Your task to perform on an android device: When is my next appointment? Image 0: 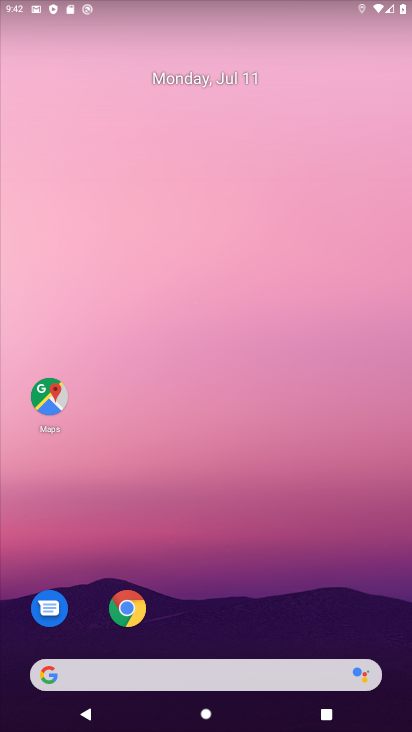
Step 0: click (151, 218)
Your task to perform on an android device: When is my next appointment? Image 1: 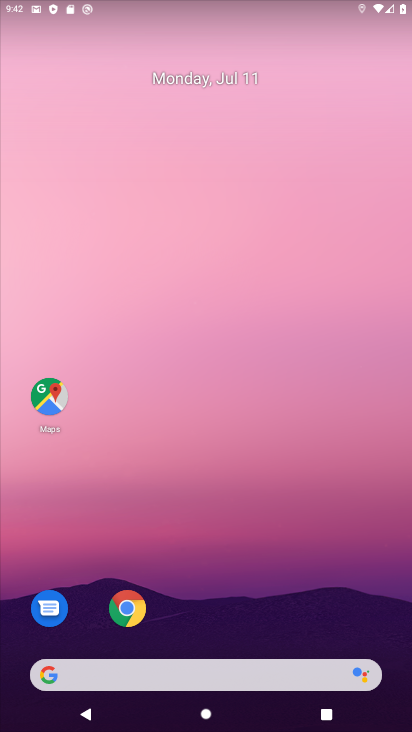
Step 1: drag from (238, 508) to (148, 15)
Your task to perform on an android device: When is my next appointment? Image 2: 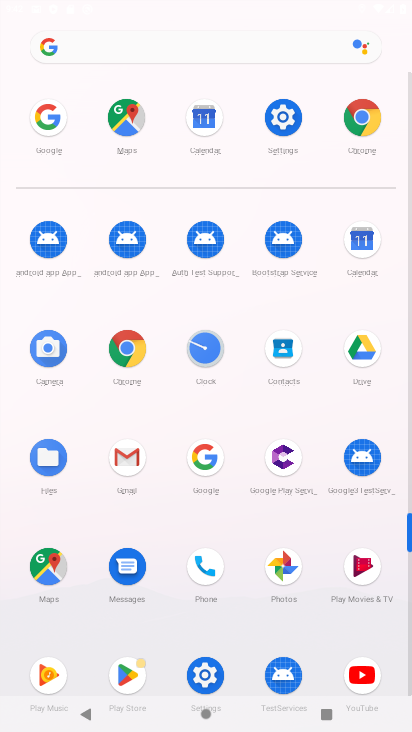
Step 2: drag from (289, 536) to (245, 46)
Your task to perform on an android device: When is my next appointment? Image 3: 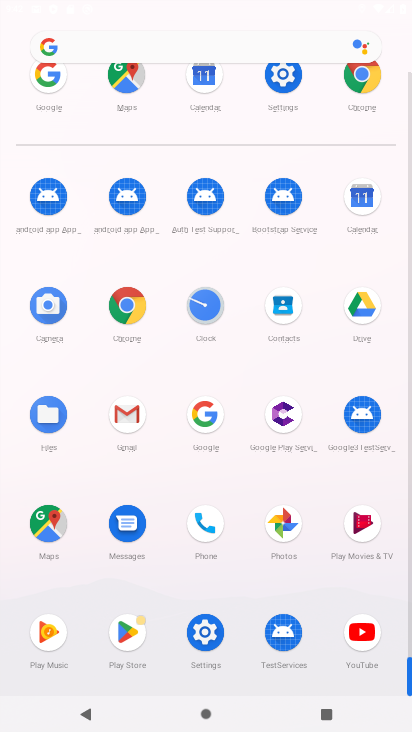
Step 3: click (360, 202)
Your task to perform on an android device: When is my next appointment? Image 4: 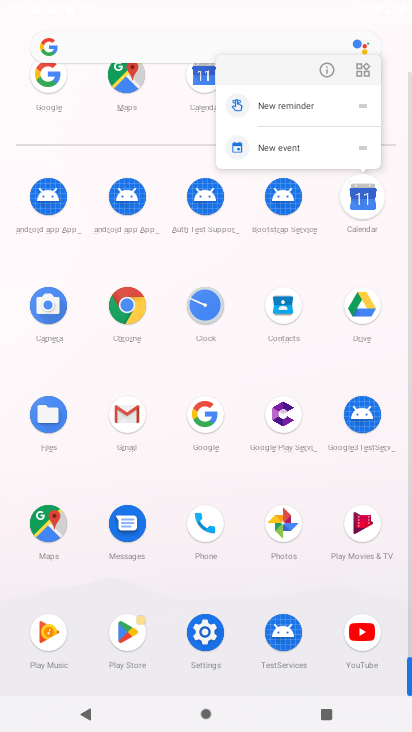
Step 4: click (360, 203)
Your task to perform on an android device: When is my next appointment? Image 5: 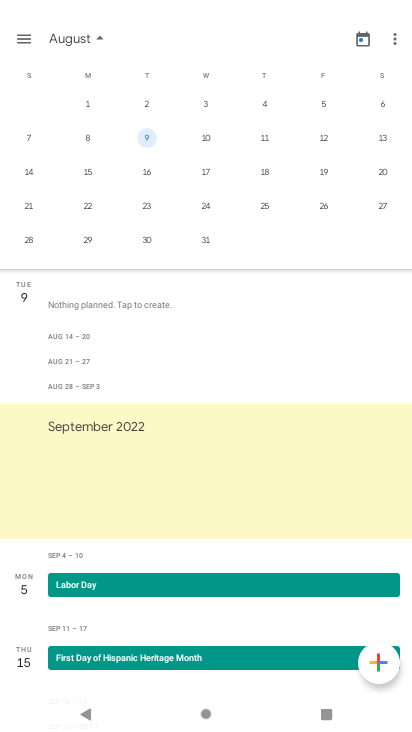
Step 5: drag from (117, 563) to (76, 255)
Your task to perform on an android device: When is my next appointment? Image 6: 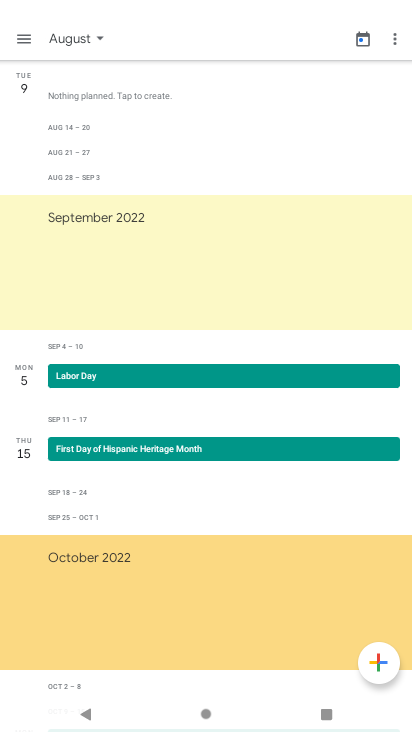
Step 6: drag from (215, 464) to (215, 318)
Your task to perform on an android device: When is my next appointment? Image 7: 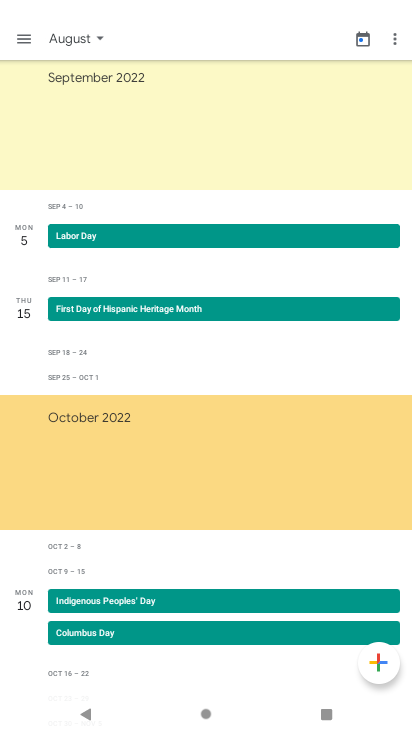
Step 7: drag from (201, 446) to (202, 218)
Your task to perform on an android device: When is my next appointment? Image 8: 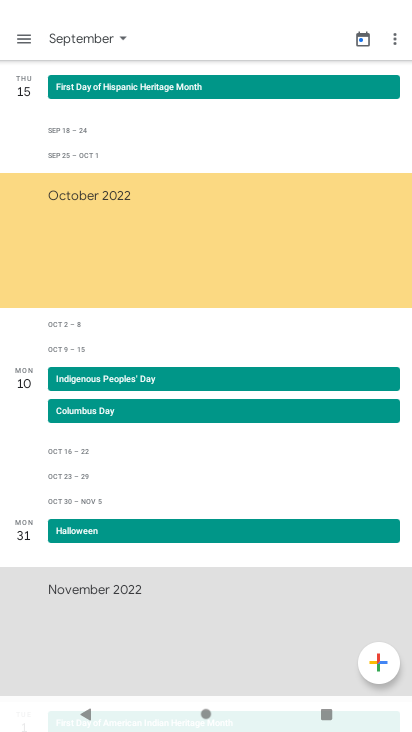
Step 8: drag from (226, 391) to (231, 162)
Your task to perform on an android device: When is my next appointment? Image 9: 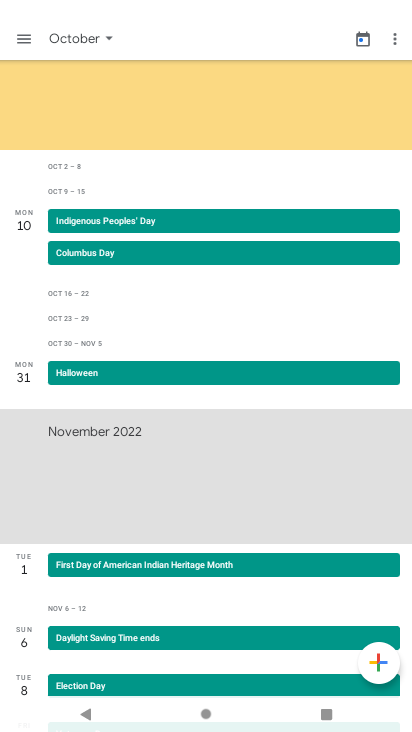
Step 9: click (265, 185)
Your task to perform on an android device: When is my next appointment? Image 10: 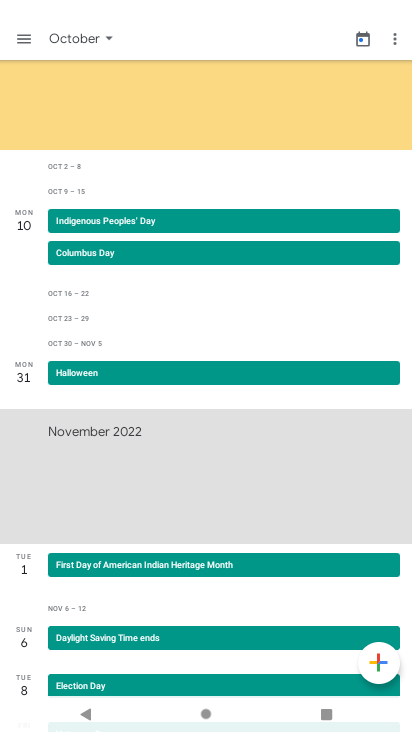
Step 10: task complete